Your task to perform on an android device: turn pop-ups off in chrome Image 0: 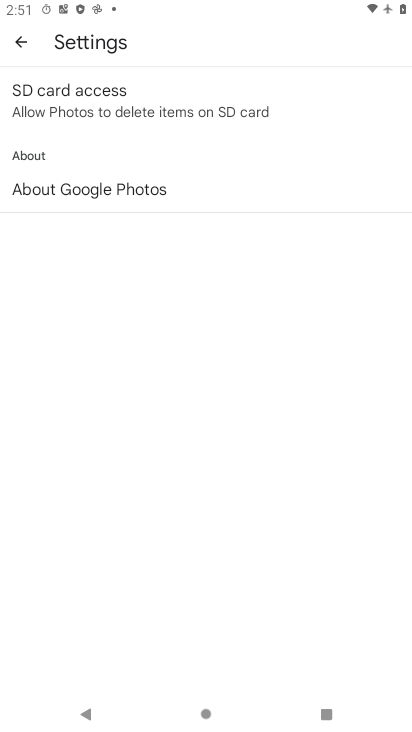
Step 0: press home button
Your task to perform on an android device: turn pop-ups off in chrome Image 1: 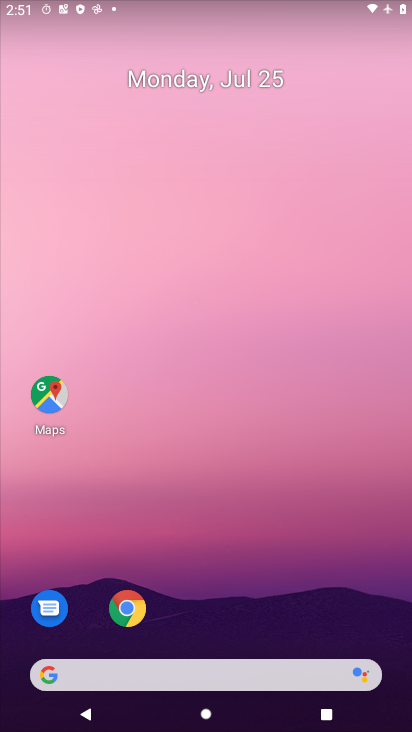
Step 1: drag from (256, 657) to (264, 164)
Your task to perform on an android device: turn pop-ups off in chrome Image 2: 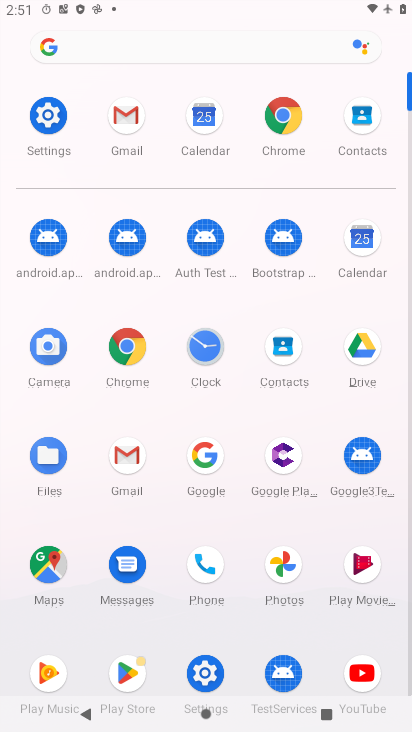
Step 2: click (148, 362)
Your task to perform on an android device: turn pop-ups off in chrome Image 3: 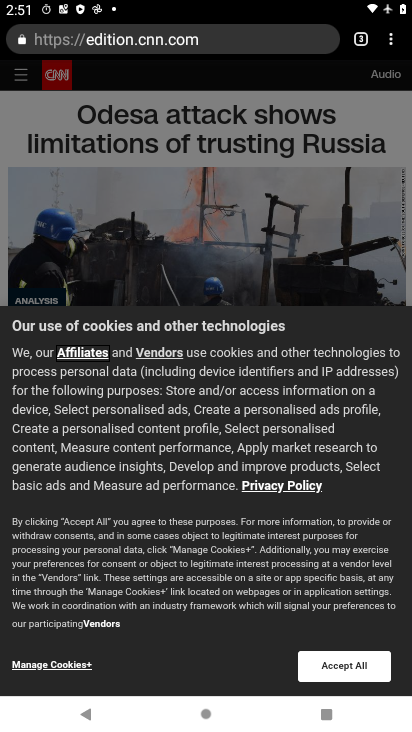
Step 3: click (398, 41)
Your task to perform on an android device: turn pop-ups off in chrome Image 4: 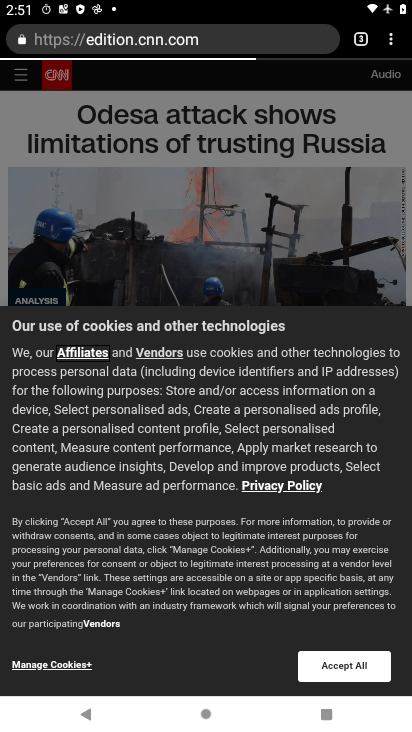
Step 4: click (395, 43)
Your task to perform on an android device: turn pop-ups off in chrome Image 5: 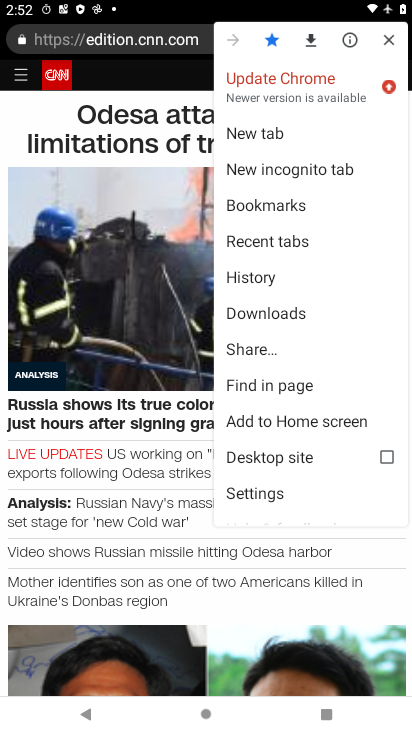
Step 5: click (249, 490)
Your task to perform on an android device: turn pop-ups off in chrome Image 6: 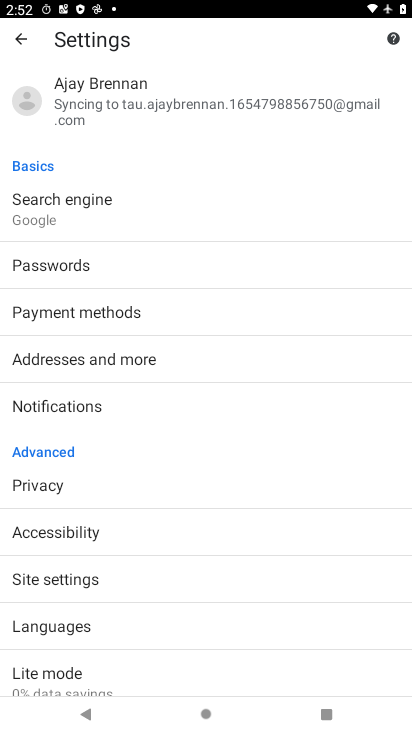
Step 6: drag from (129, 563) to (165, 401)
Your task to perform on an android device: turn pop-ups off in chrome Image 7: 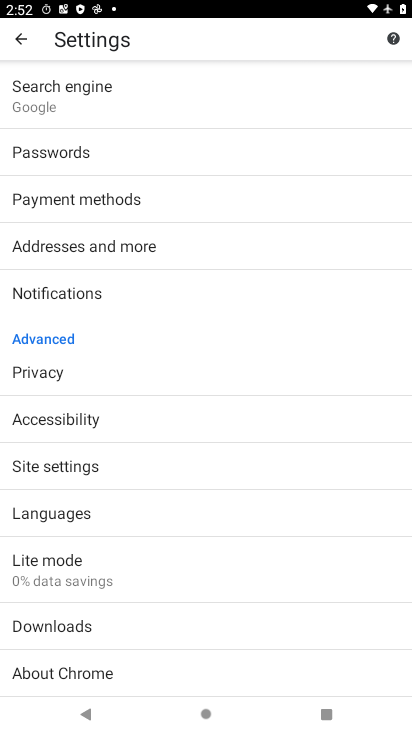
Step 7: click (123, 471)
Your task to perform on an android device: turn pop-ups off in chrome Image 8: 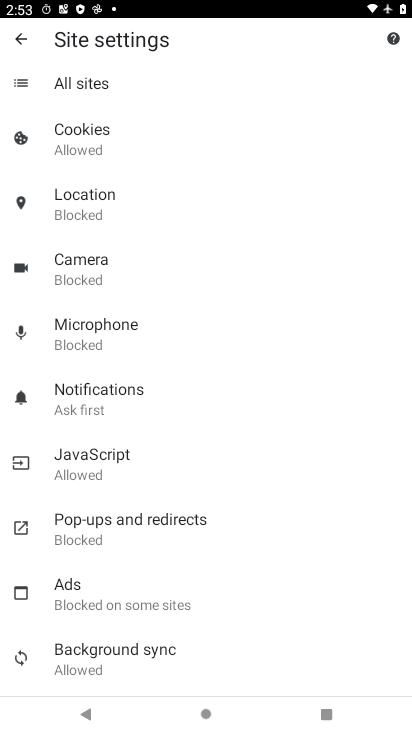
Step 8: click (196, 543)
Your task to perform on an android device: turn pop-ups off in chrome Image 9: 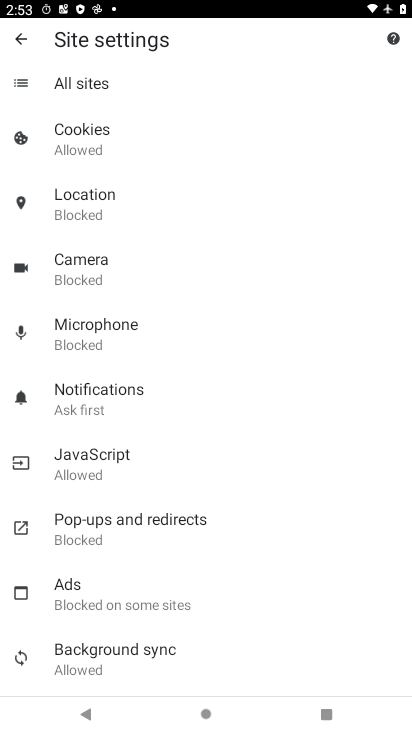
Step 9: click (162, 468)
Your task to perform on an android device: turn pop-ups off in chrome Image 10: 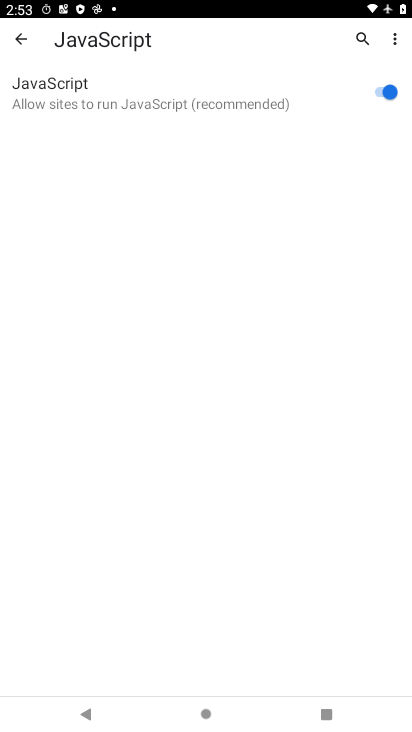
Step 10: click (20, 45)
Your task to perform on an android device: turn pop-ups off in chrome Image 11: 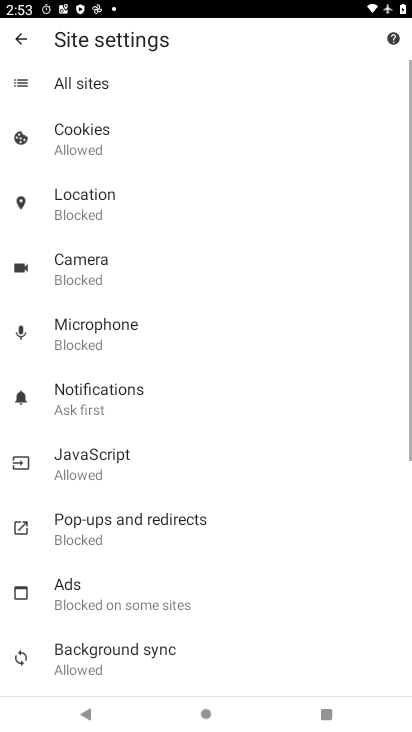
Step 11: click (134, 547)
Your task to perform on an android device: turn pop-ups off in chrome Image 12: 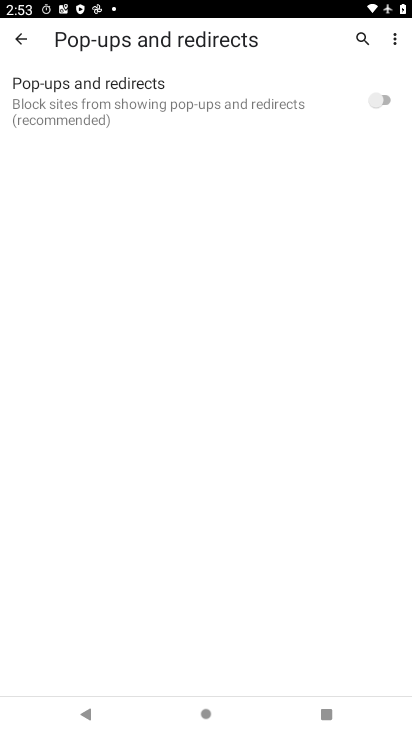
Step 12: task complete